Your task to perform on an android device: Clear the shopping cart on newegg. Image 0: 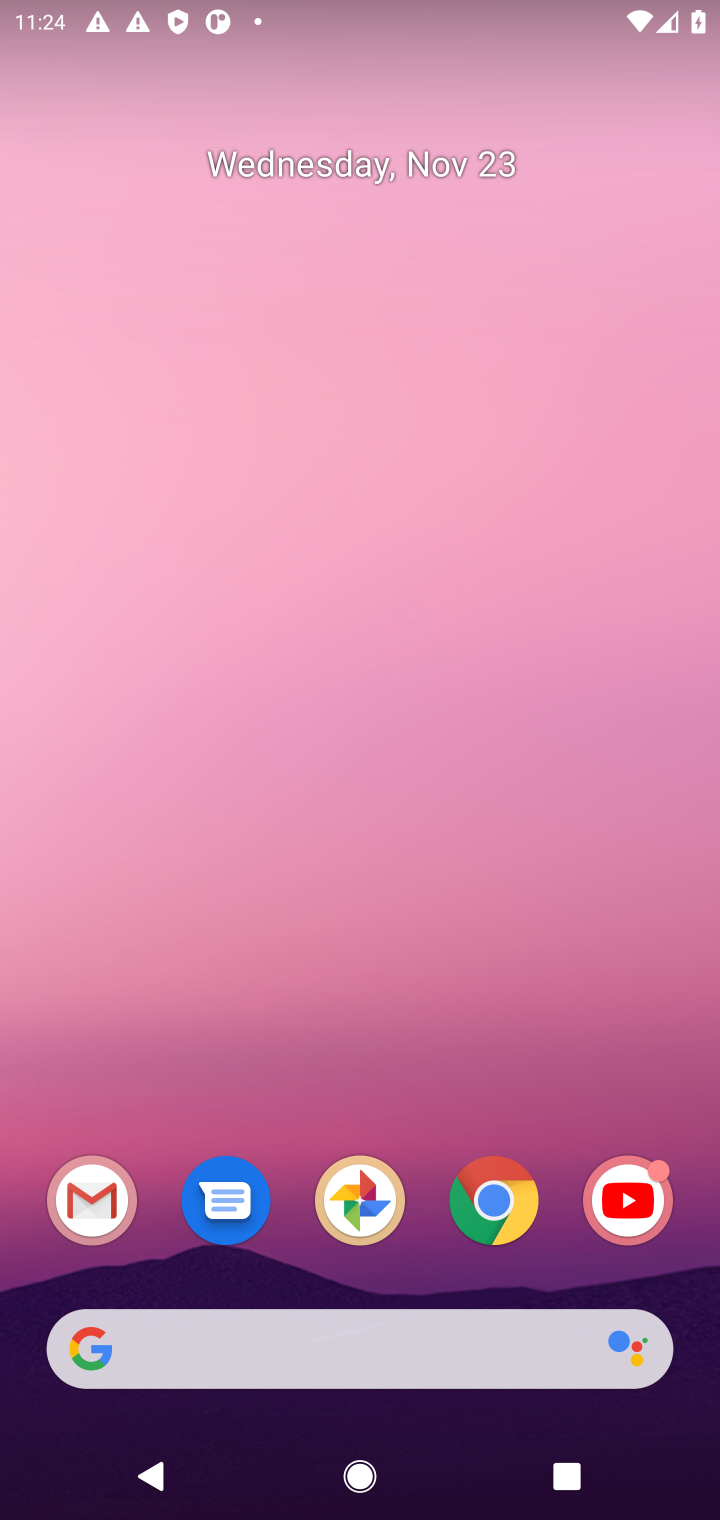
Step 0: click (266, 1370)
Your task to perform on an android device: Clear the shopping cart on newegg. Image 1: 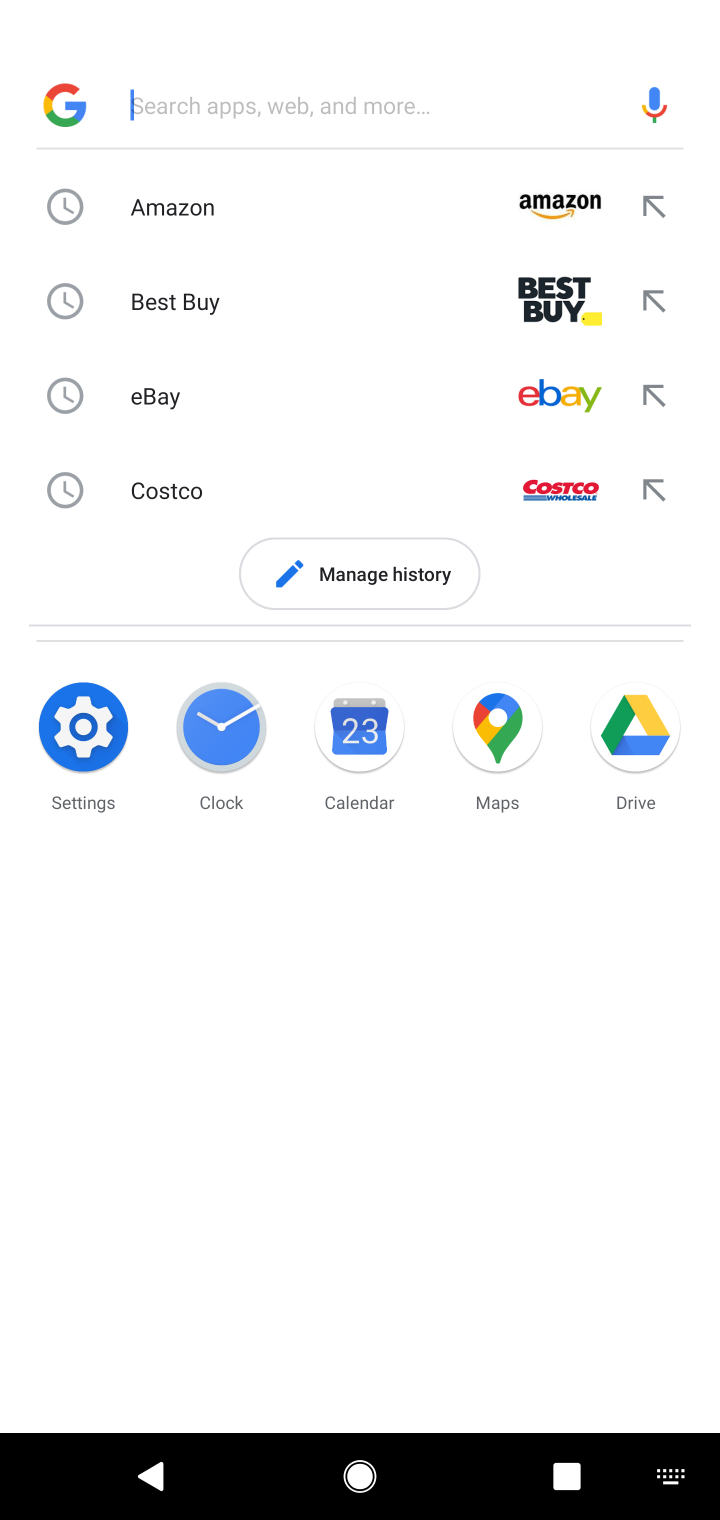
Step 1: type "newegg"
Your task to perform on an android device: Clear the shopping cart on newegg. Image 2: 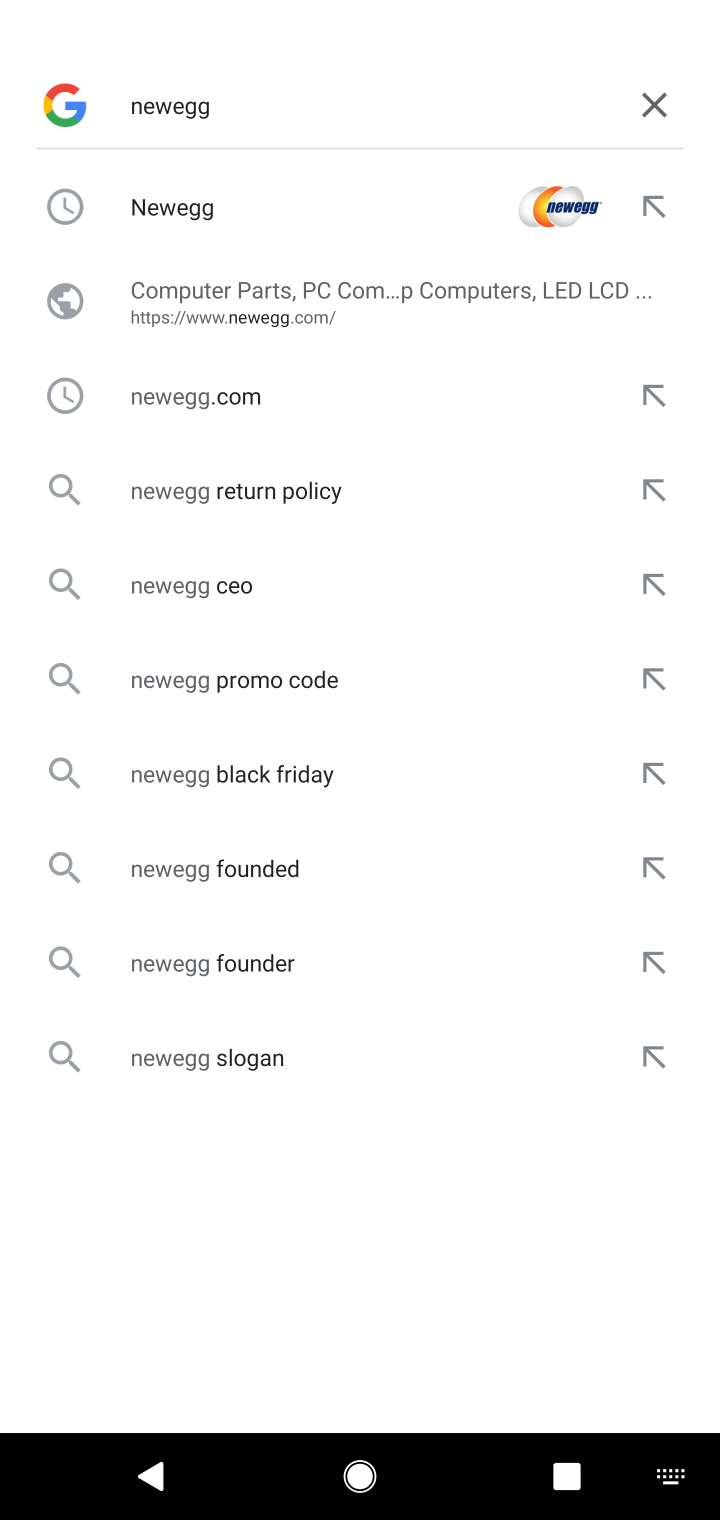
Step 2: click (229, 206)
Your task to perform on an android device: Clear the shopping cart on newegg. Image 3: 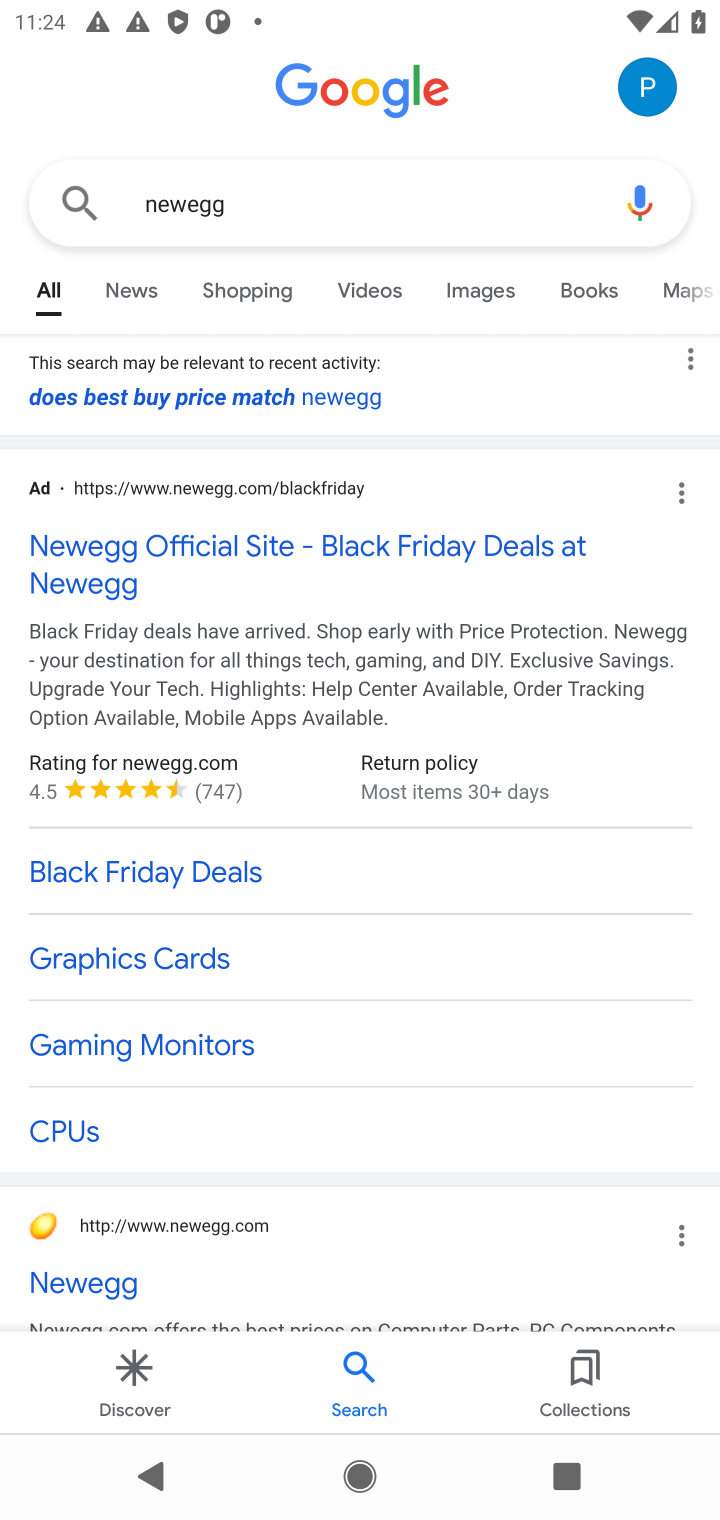
Step 3: click (259, 524)
Your task to perform on an android device: Clear the shopping cart on newegg. Image 4: 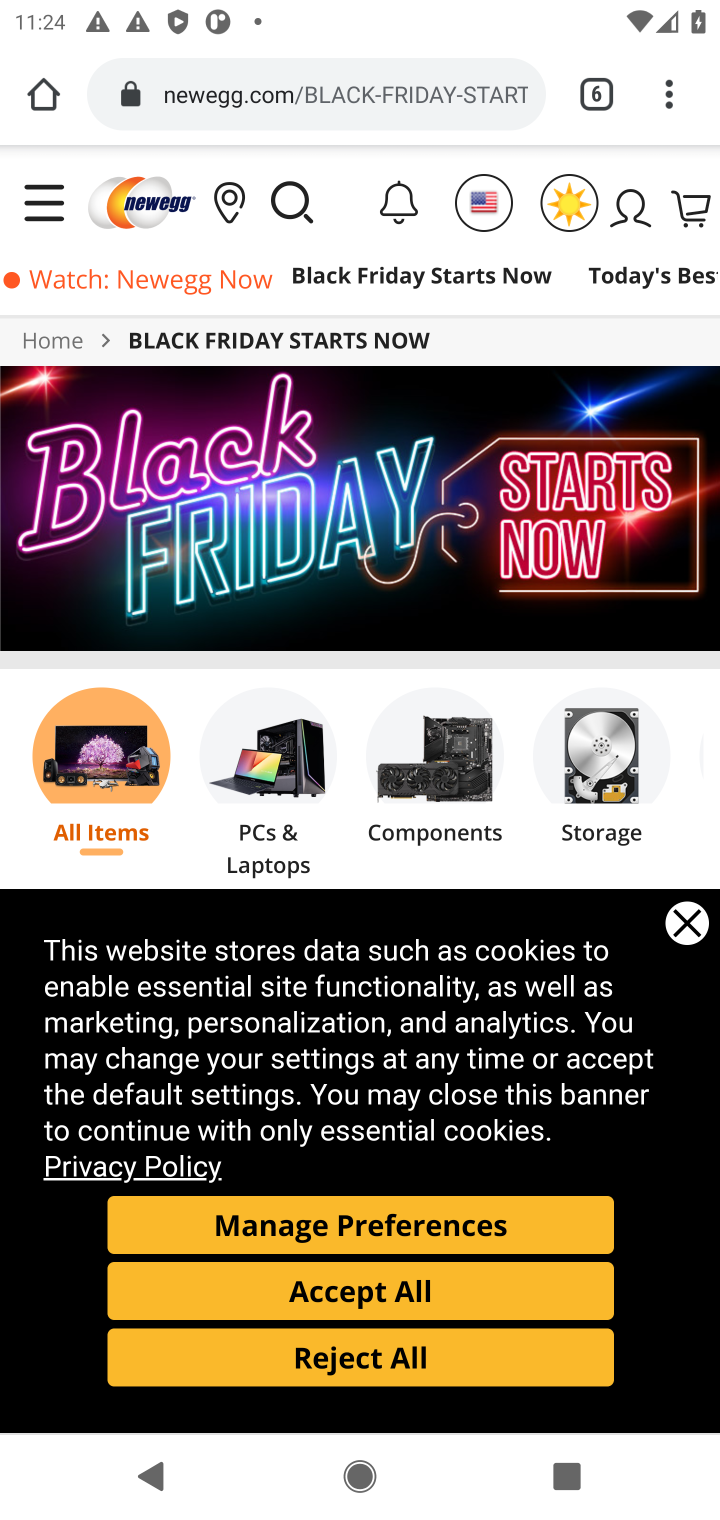
Step 4: click (423, 1285)
Your task to perform on an android device: Clear the shopping cart on newegg. Image 5: 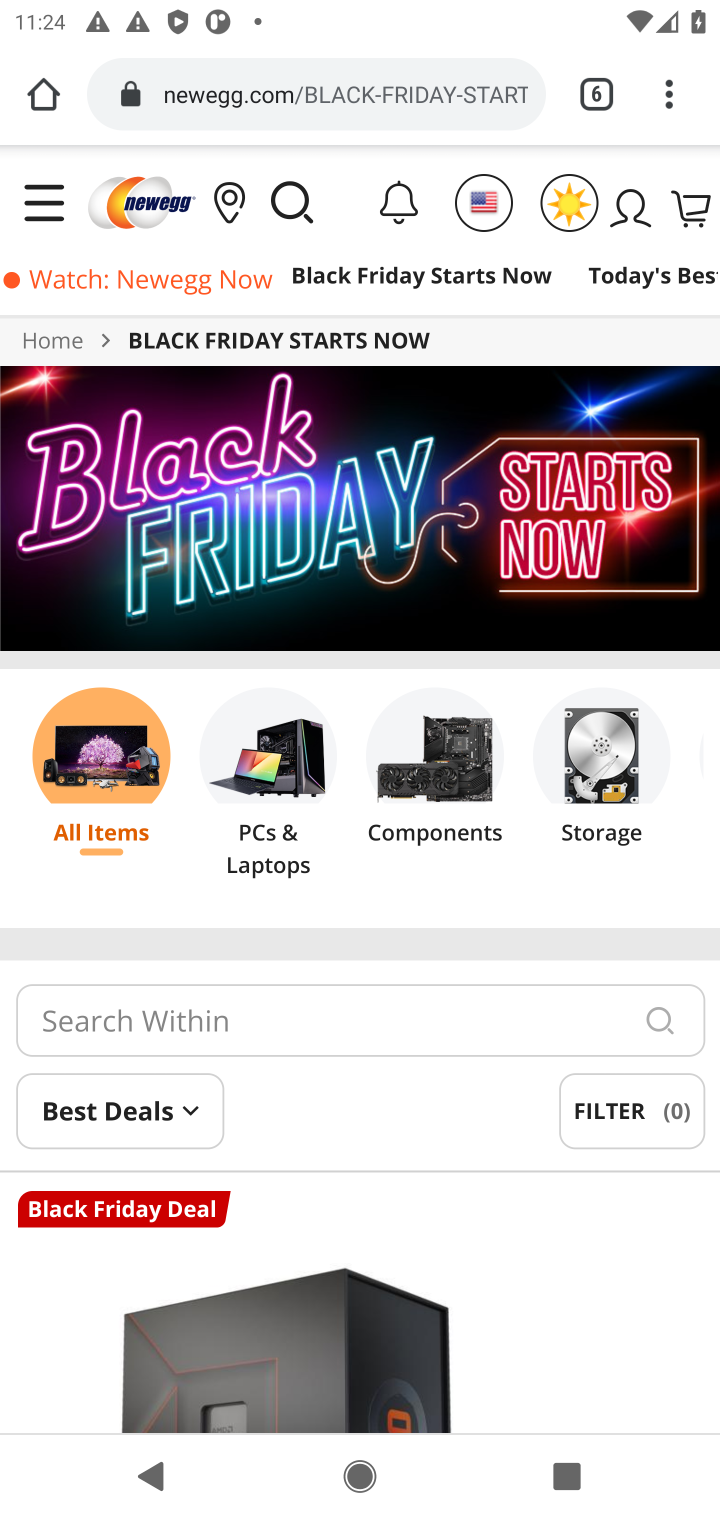
Step 5: click (303, 218)
Your task to perform on an android device: Clear the shopping cart on newegg. Image 6: 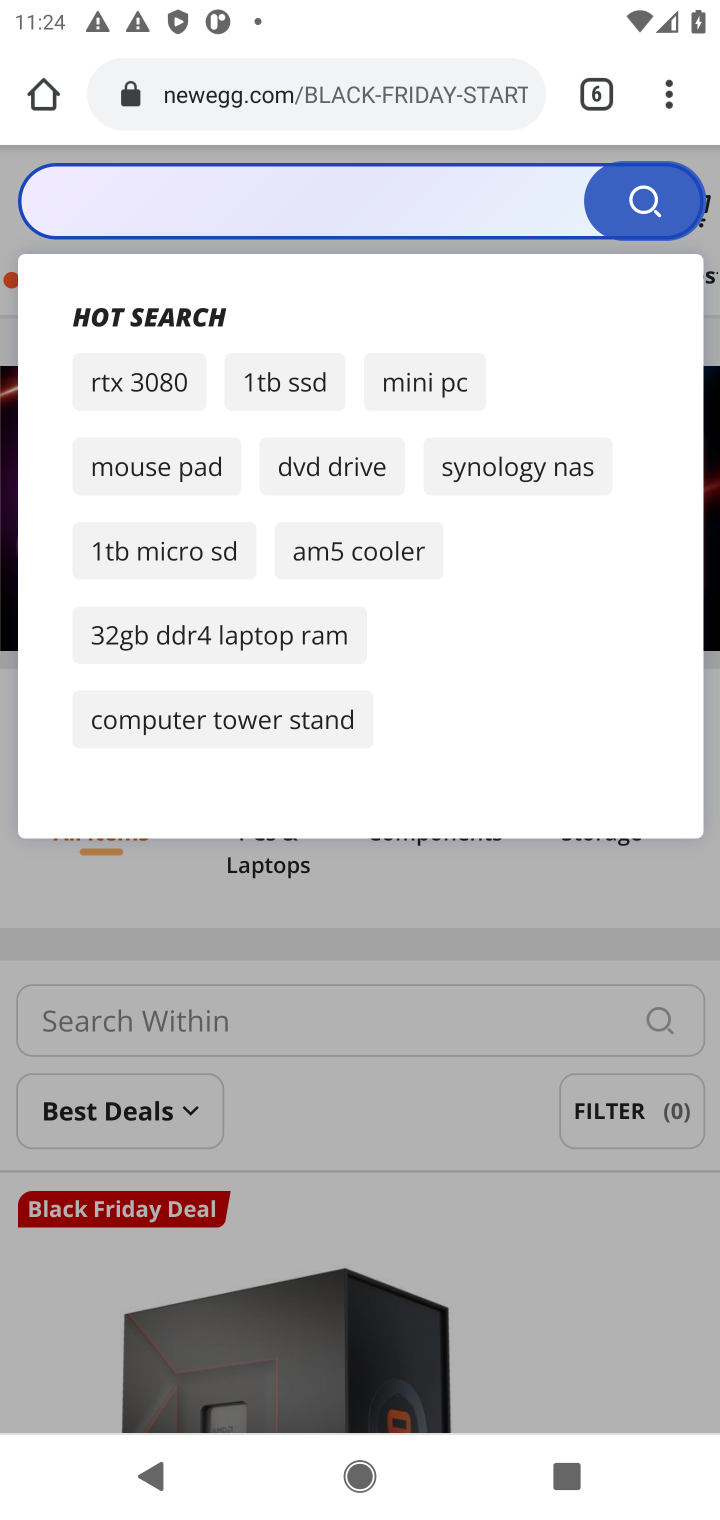
Step 6: click (445, 1097)
Your task to perform on an android device: Clear the shopping cart on newegg. Image 7: 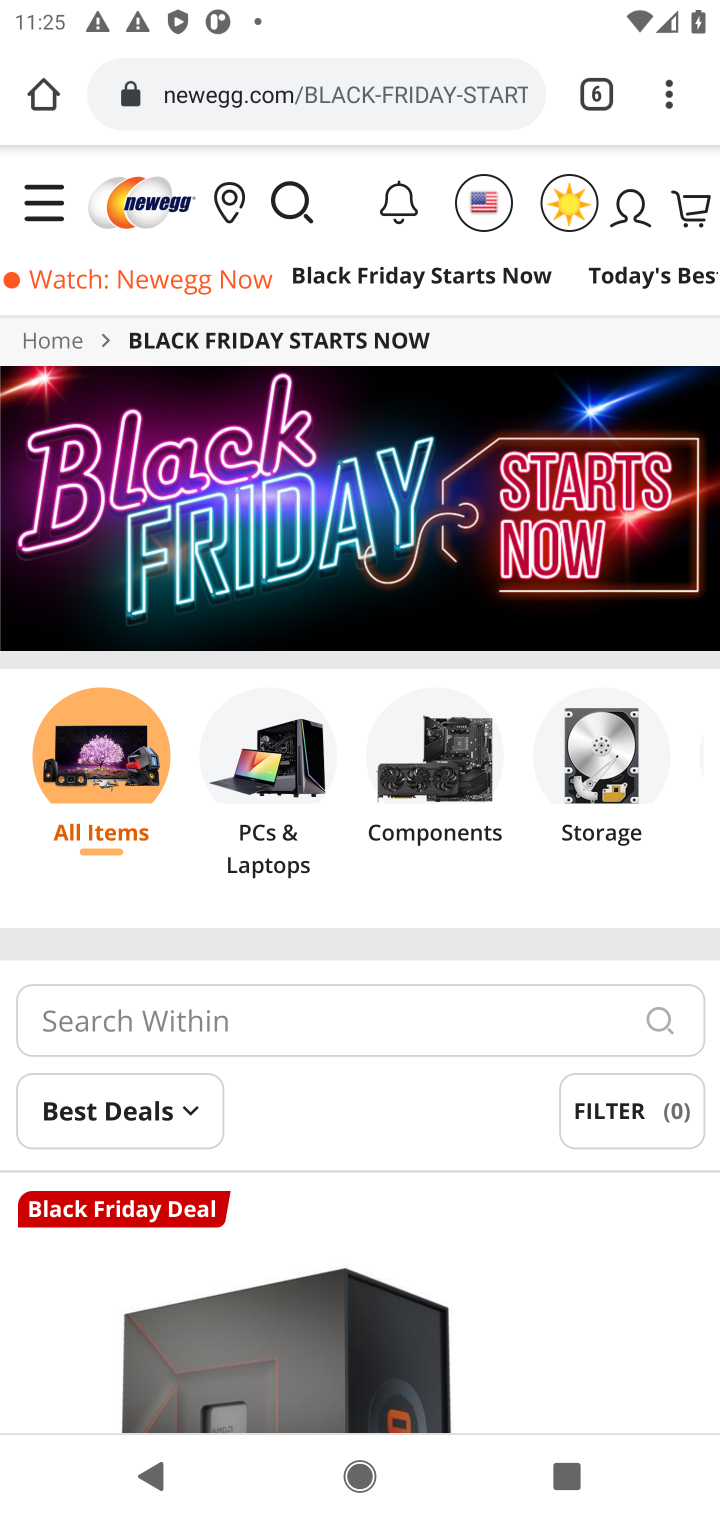
Step 7: click (690, 243)
Your task to perform on an android device: Clear the shopping cart on newegg. Image 8: 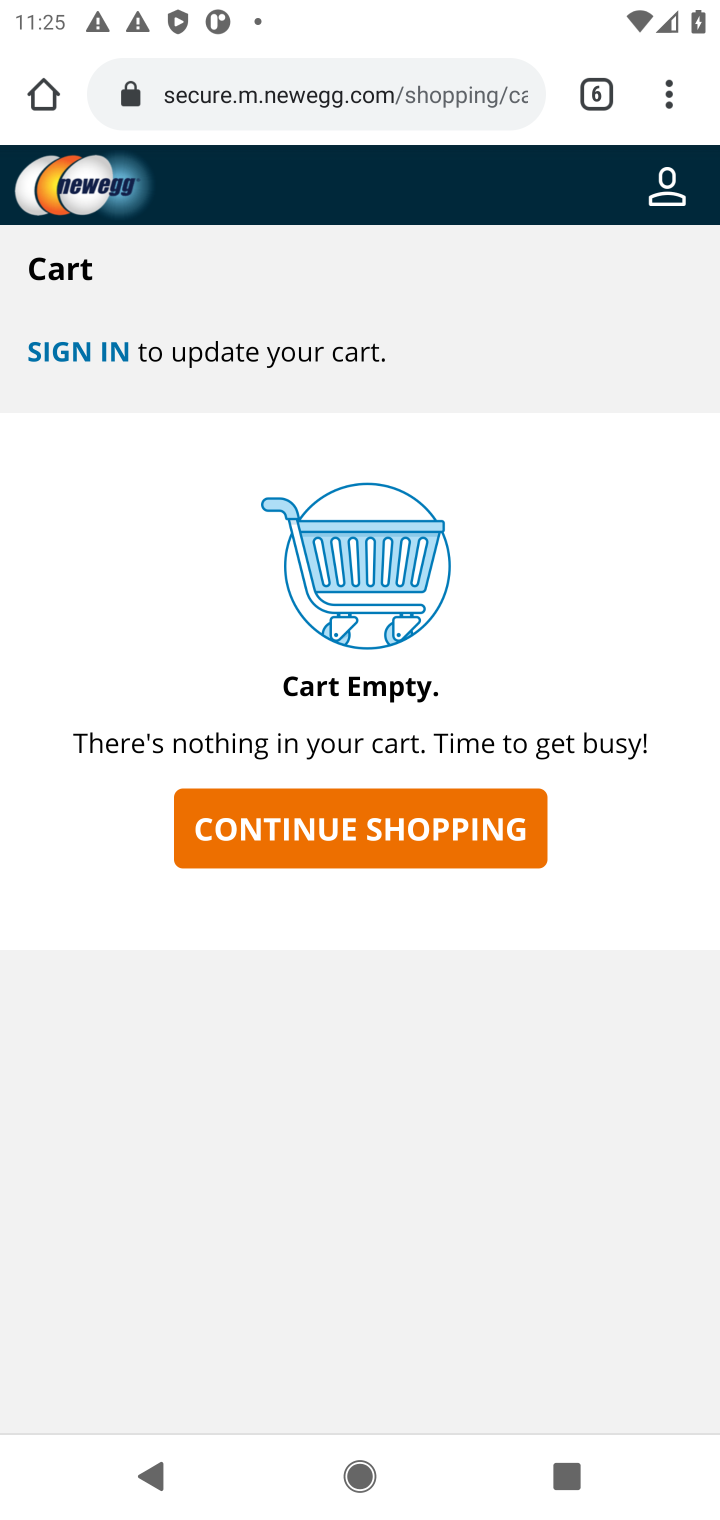
Step 8: task complete